Your task to perform on an android device: toggle sleep mode Image 0: 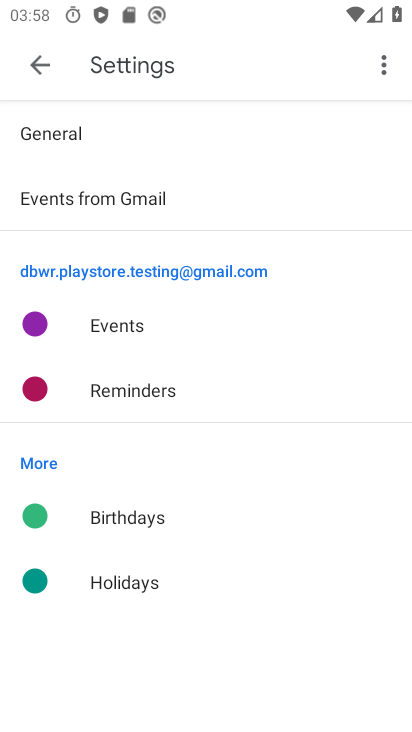
Step 0: press home button
Your task to perform on an android device: toggle sleep mode Image 1: 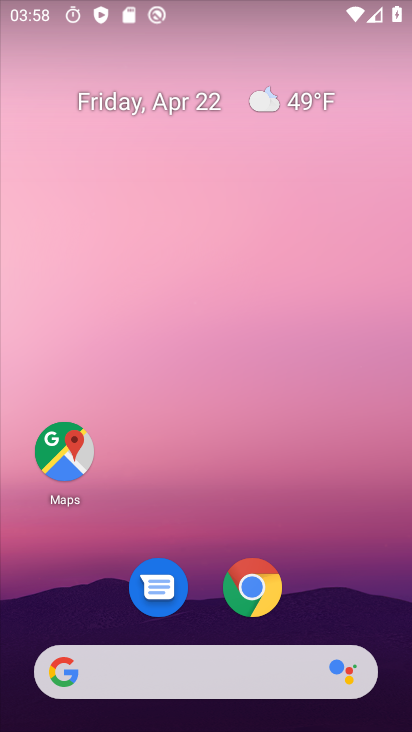
Step 1: drag from (373, 606) to (408, 314)
Your task to perform on an android device: toggle sleep mode Image 2: 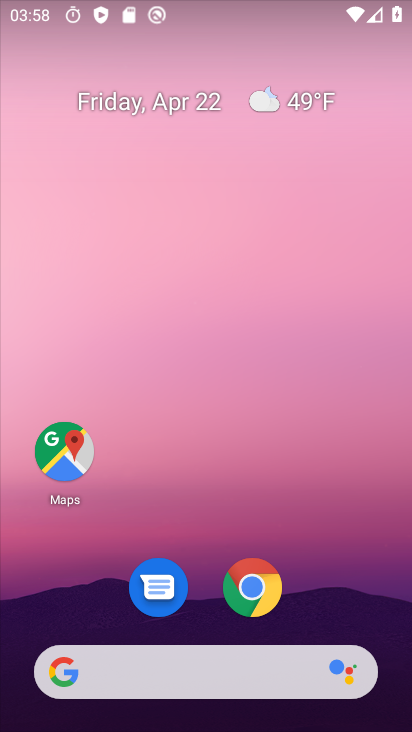
Step 2: drag from (366, 594) to (350, 12)
Your task to perform on an android device: toggle sleep mode Image 3: 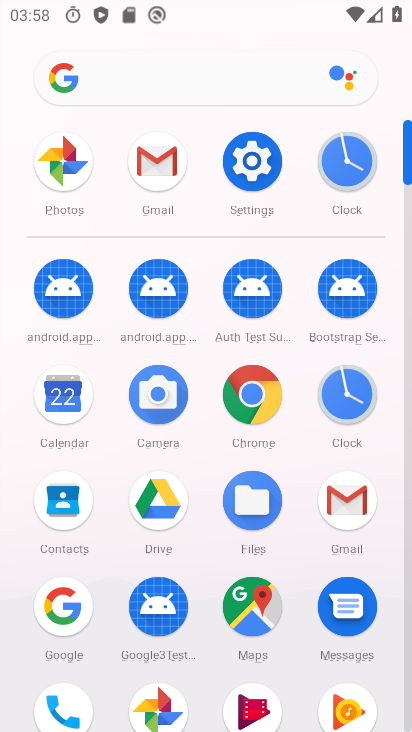
Step 3: click (257, 167)
Your task to perform on an android device: toggle sleep mode Image 4: 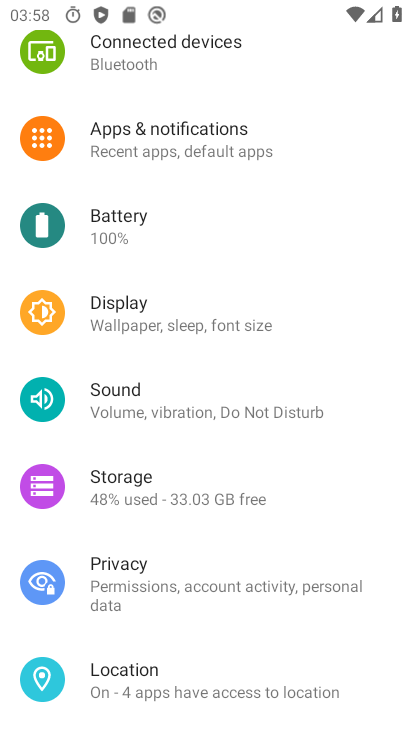
Step 4: click (106, 314)
Your task to perform on an android device: toggle sleep mode Image 5: 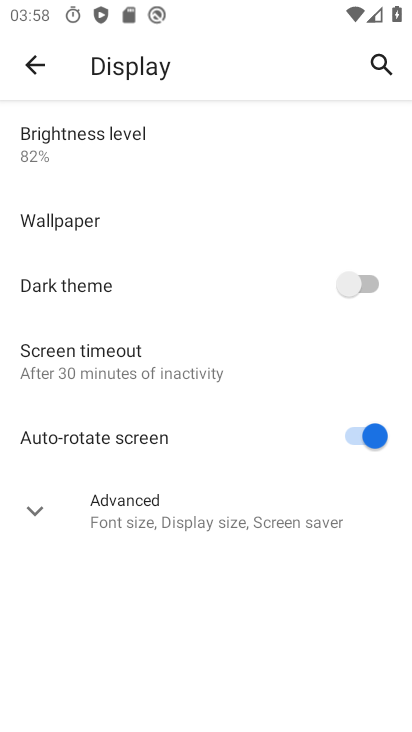
Step 5: click (30, 520)
Your task to perform on an android device: toggle sleep mode Image 6: 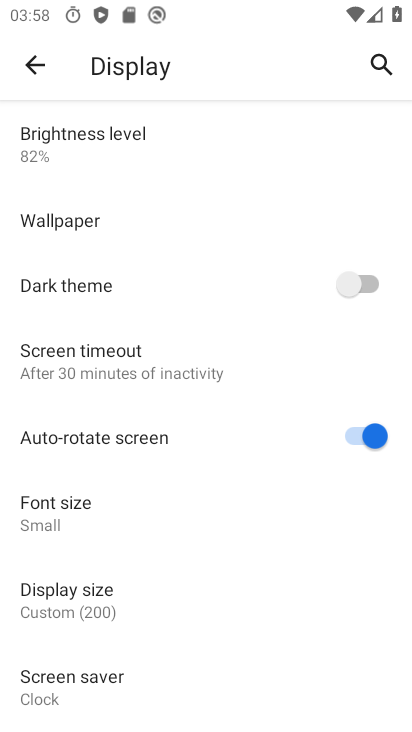
Step 6: task complete